Your task to perform on an android device: set the stopwatch Image 0: 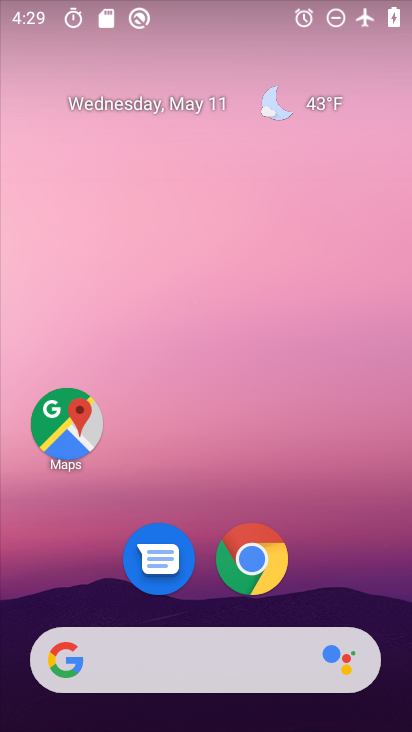
Step 0: drag from (286, 354) to (199, 47)
Your task to perform on an android device: set the stopwatch Image 1: 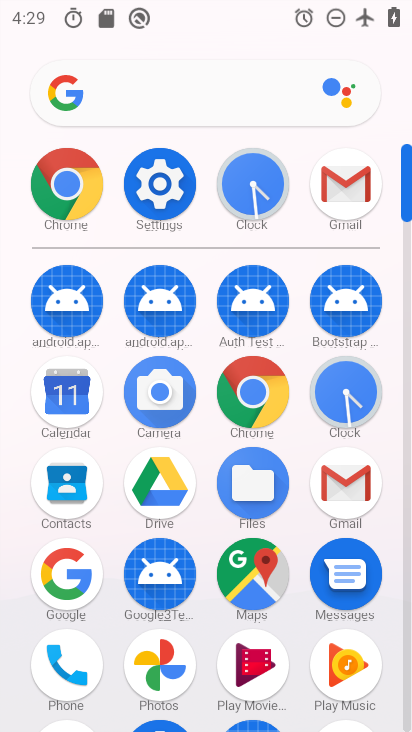
Step 1: click (265, 165)
Your task to perform on an android device: set the stopwatch Image 2: 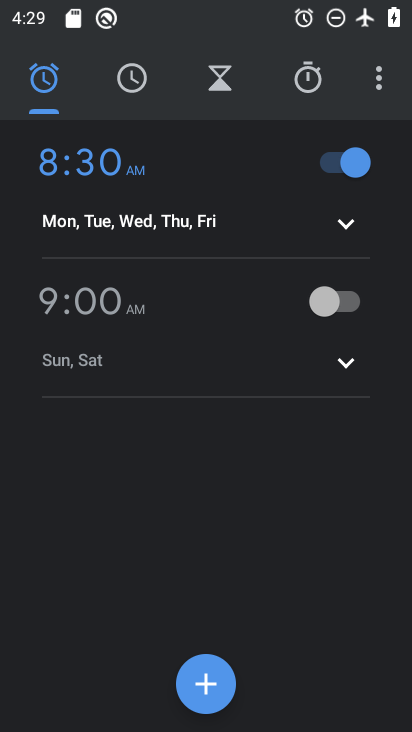
Step 2: click (308, 80)
Your task to perform on an android device: set the stopwatch Image 3: 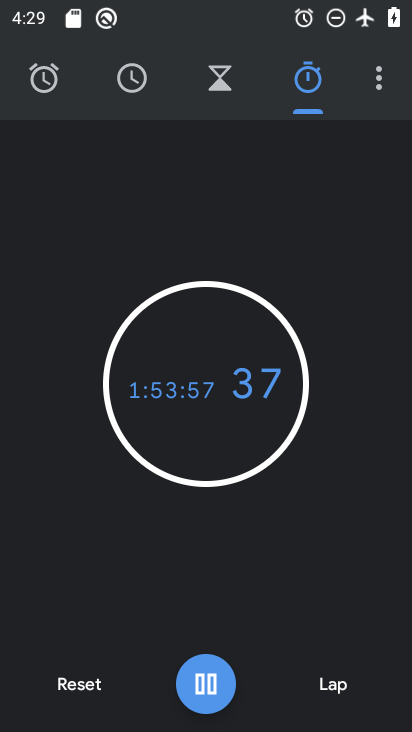
Step 3: task complete